Your task to perform on an android device: Go to sound settings Image 0: 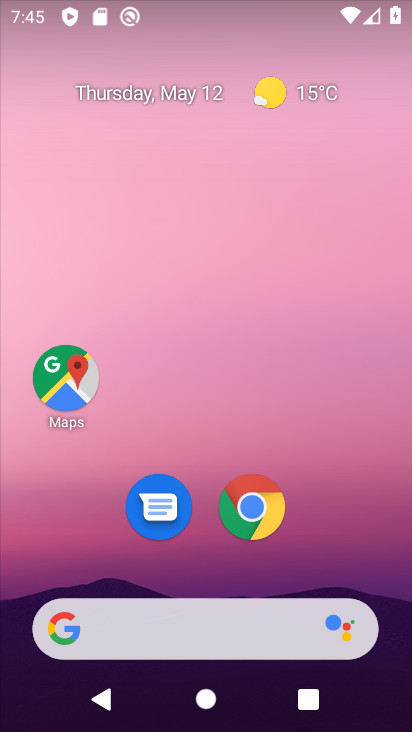
Step 0: drag from (280, 579) to (331, 0)
Your task to perform on an android device: Go to sound settings Image 1: 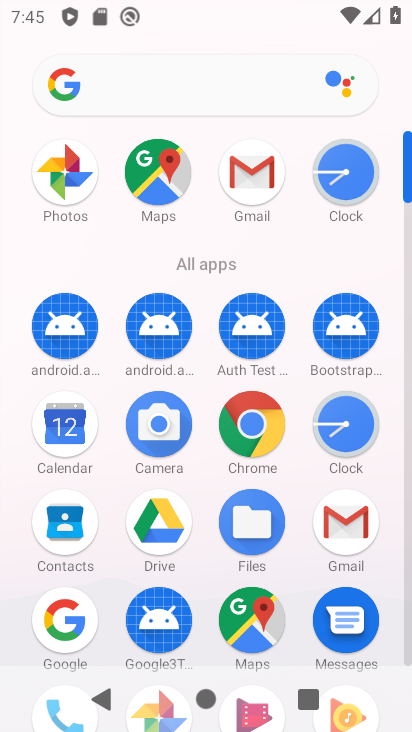
Step 1: drag from (201, 463) to (206, 151)
Your task to perform on an android device: Go to sound settings Image 2: 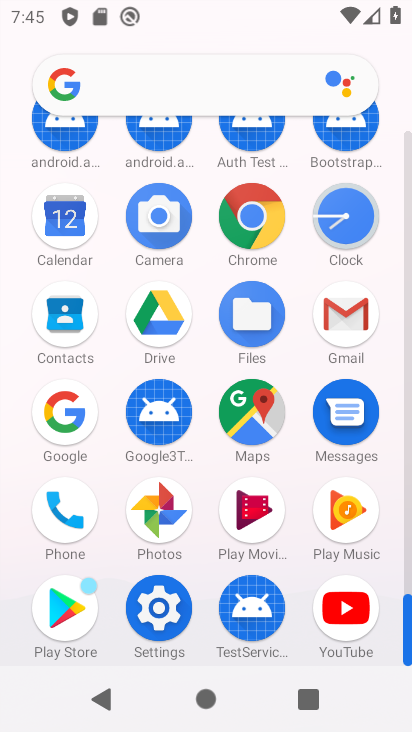
Step 2: click (155, 627)
Your task to perform on an android device: Go to sound settings Image 3: 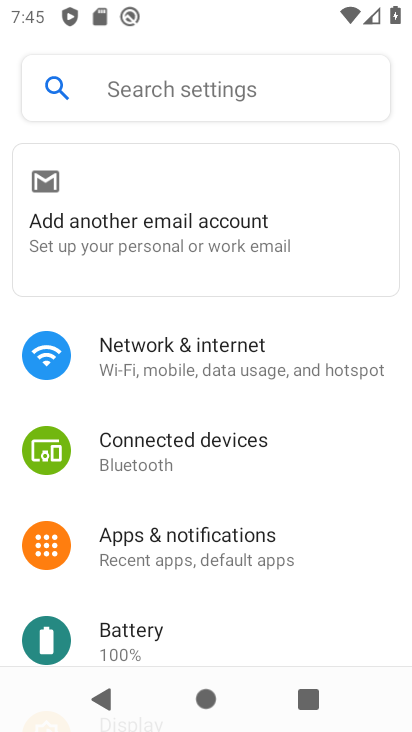
Step 3: drag from (177, 564) to (193, 408)
Your task to perform on an android device: Go to sound settings Image 4: 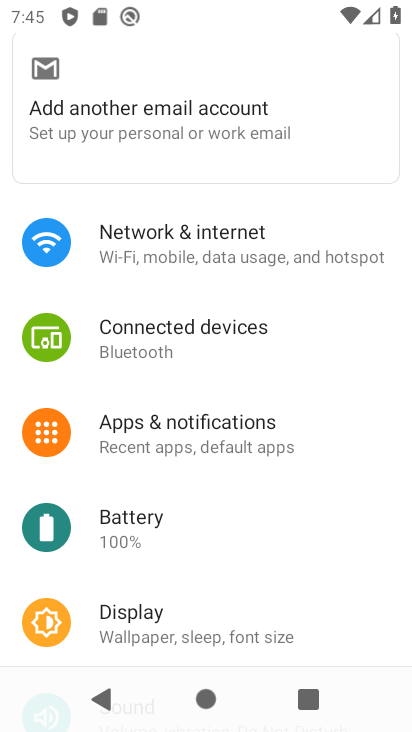
Step 4: drag from (197, 575) to (219, 352)
Your task to perform on an android device: Go to sound settings Image 5: 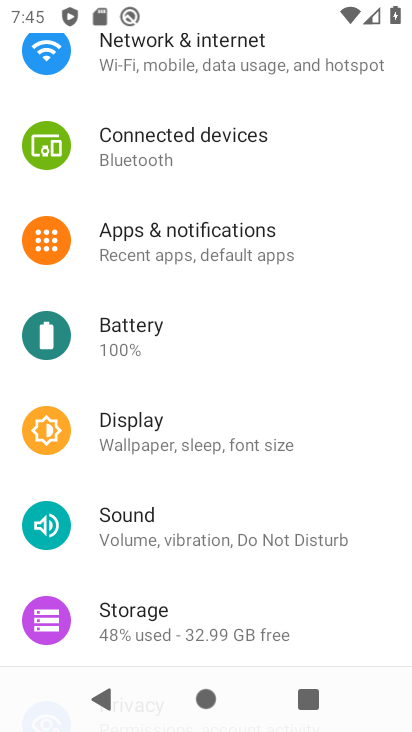
Step 5: click (106, 521)
Your task to perform on an android device: Go to sound settings Image 6: 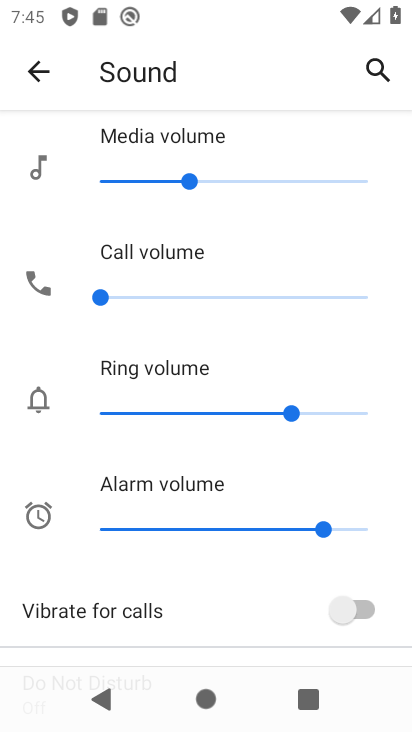
Step 6: task complete